Your task to perform on an android device: empty trash in the gmail app Image 0: 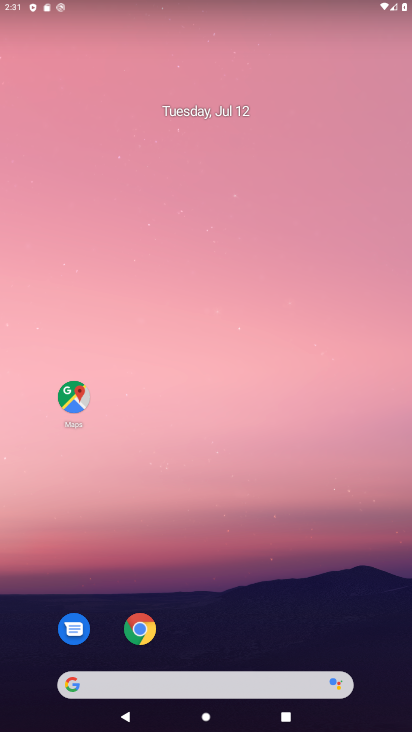
Step 0: press home button
Your task to perform on an android device: empty trash in the gmail app Image 1: 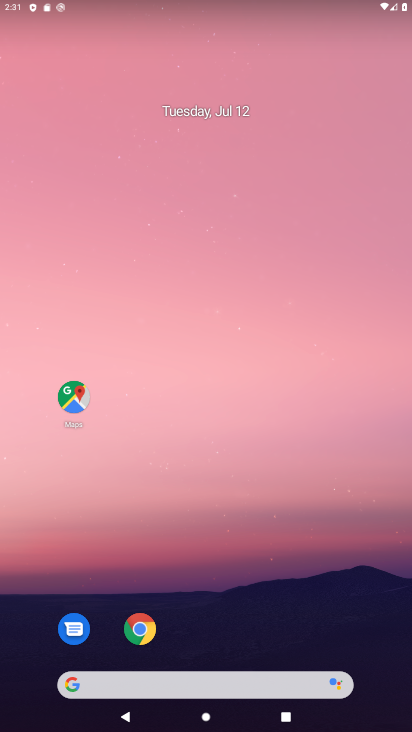
Step 1: drag from (210, 631) to (219, 104)
Your task to perform on an android device: empty trash in the gmail app Image 2: 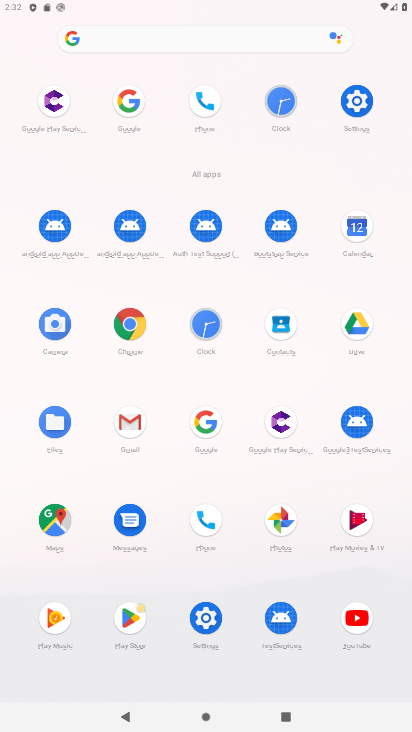
Step 2: click (132, 424)
Your task to perform on an android device: empty trash in the gmail app Image 3: 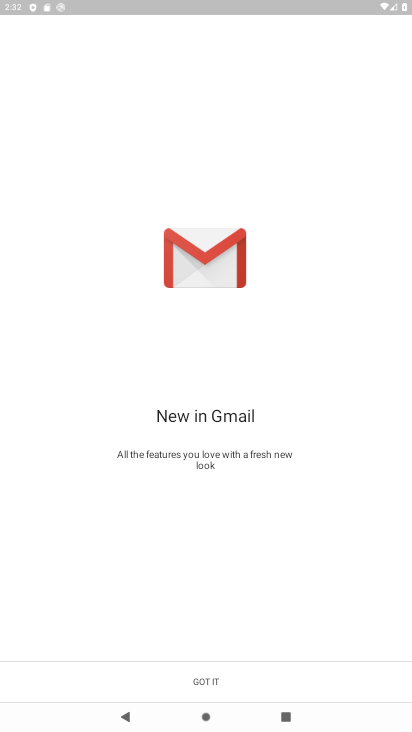
Step 3: click (199, 667)
Your task to perform on an android device: empty trash in the gmail app Image 4: 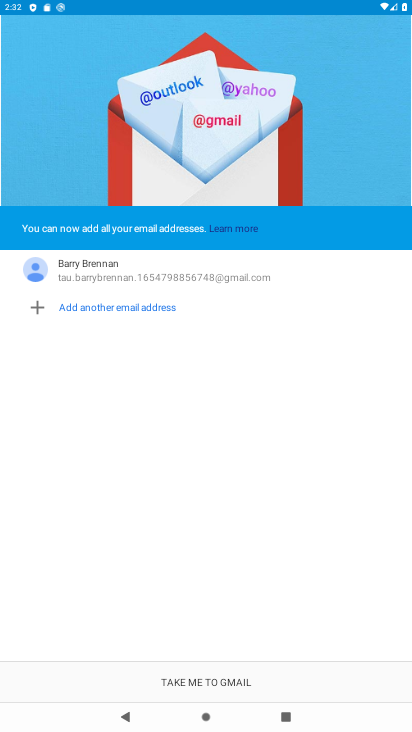
Step 4: click (205, 676)
Your task to perform on an android device: empty trash in the gmail app Image 5: 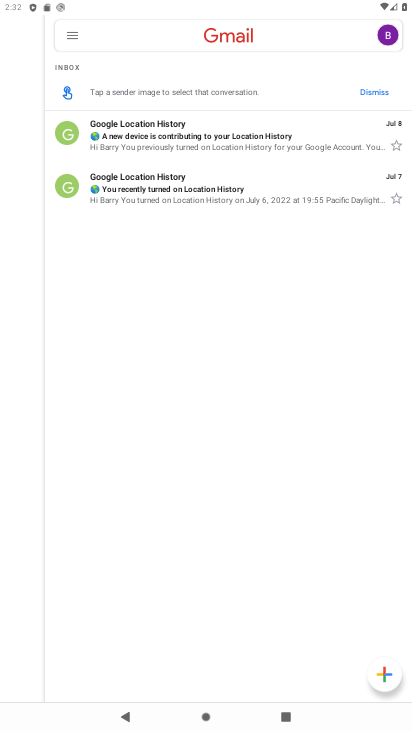
Step 5: click (72, 34)
Your task to perform on an android device: empty trash in the gmail app Image 6: 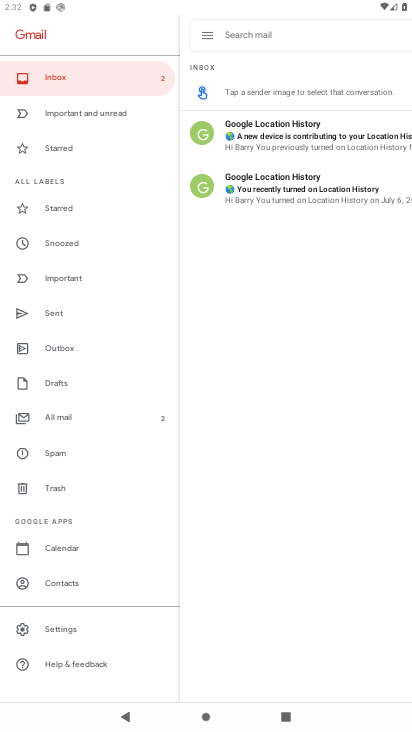
Step 6: click (65, 485)
Your task to perform on an android device: empty trash in the gmail app Image 7: 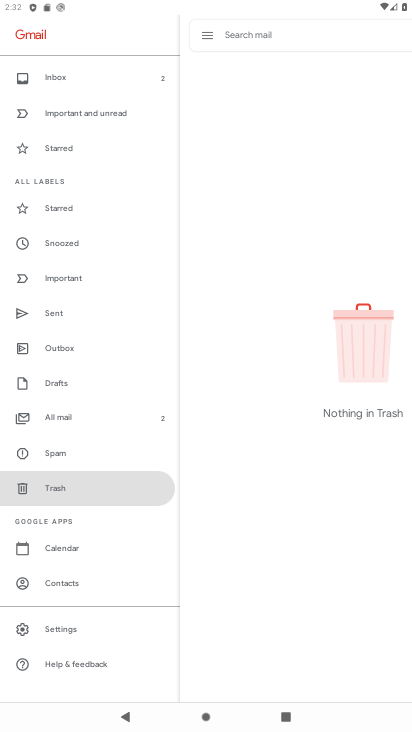
Step 7: task complete